Your task to perform on an android device: open sync settings in chrome Image 0: 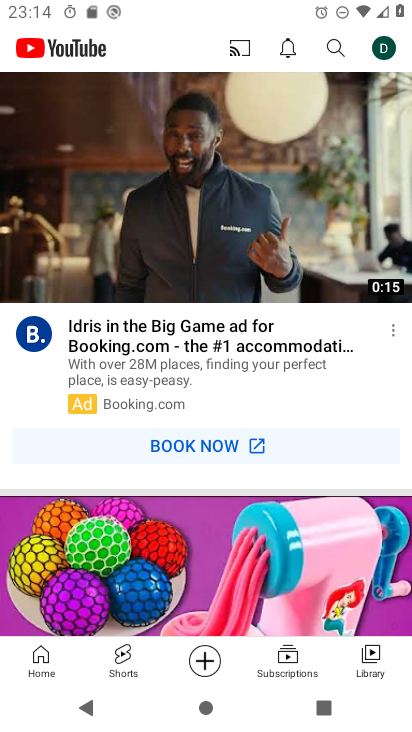
Step 0: press home button
Your task to perform on an android device: open sync settings in chrome Image 1: 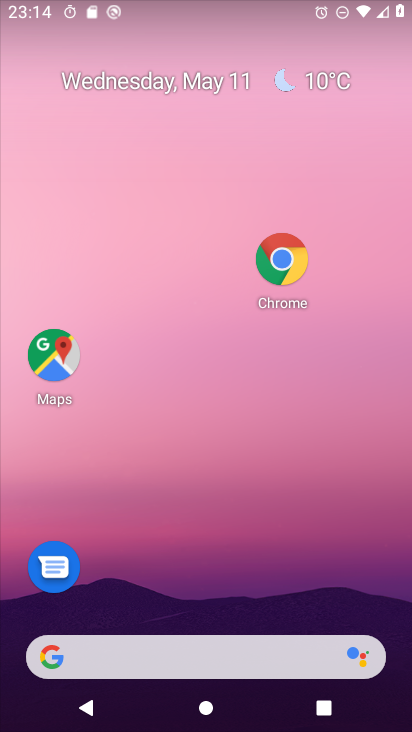
Step 1: drag from (117, 660) to (266, 182)
Your task to perform on an android device: open sync settings in chrome Image 2: 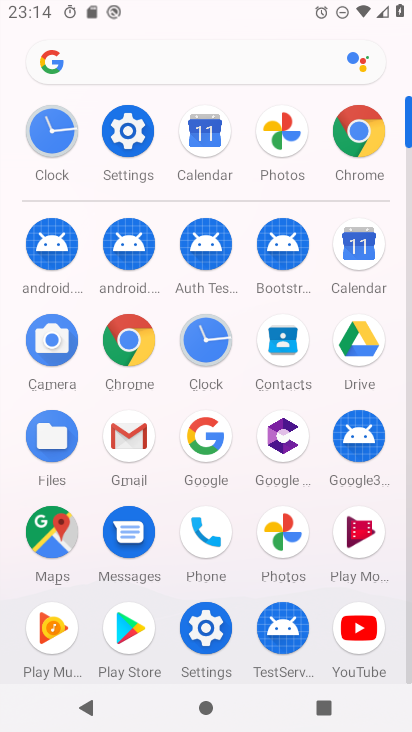
Step 2: click (366, 138)
Your task to perform on an android device: open sync settings in chrome Image 3: 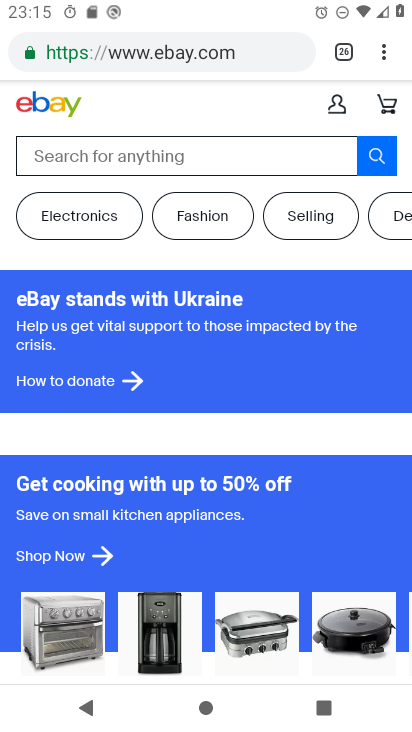
Step 3: drag from (383, 56) to (228, 608)
Your task to perform on an android device: open sync settings in chrome Image 4: 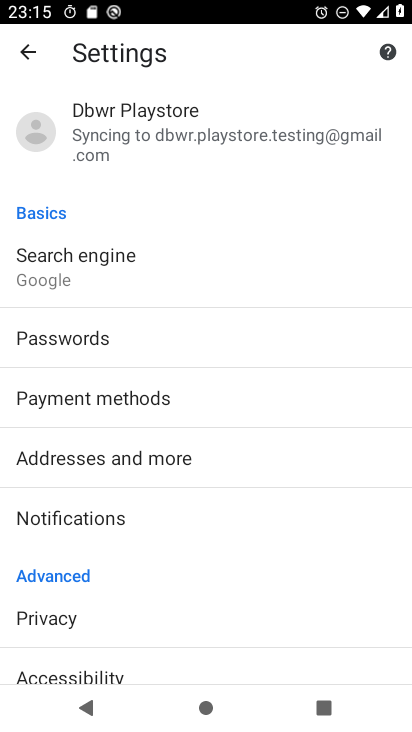
Step 4: click (176, 139)
Your task to perform on an android device: open sync settings in chrome Image 5: 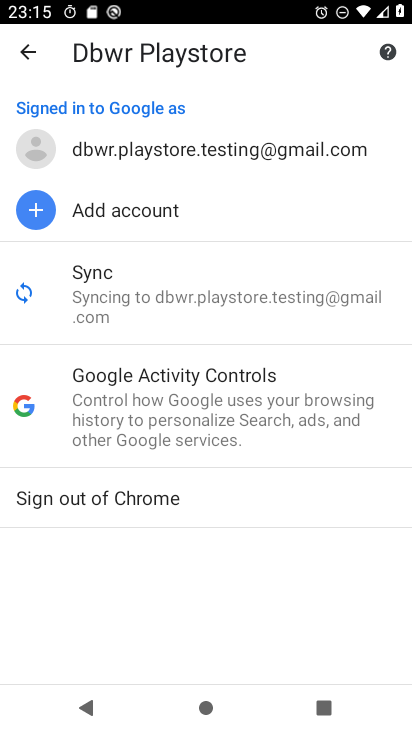
Step 5: click (155, 311)
Your task to perform on an android device: open sync settings in chrome Image 6: 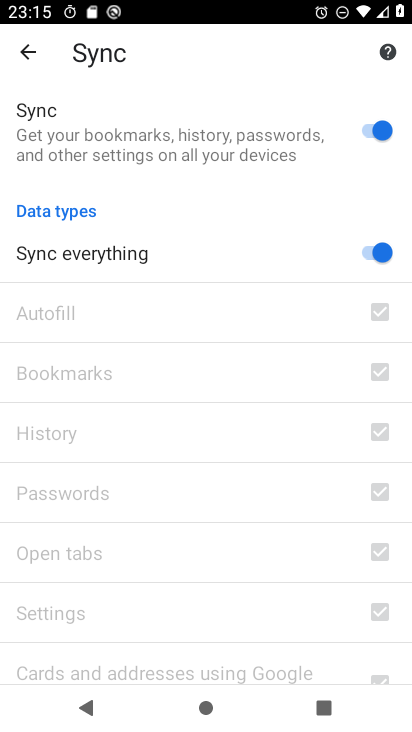
Step 6: task complete